Your task to perform on an android device: Open settings Image 0: 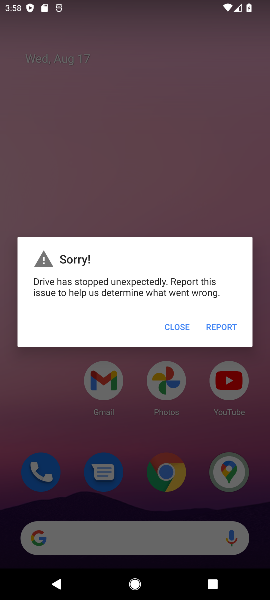
Step 0: click (173, 322)
Your task to perform on an android device: Open settings Image 1: 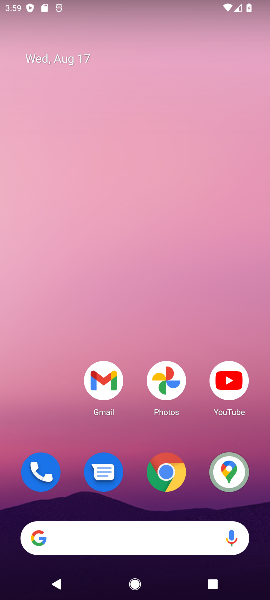
Step 1: drag from (144, 422) to (171, 27)
Your task to perform on an android device: Open settings Image 2: 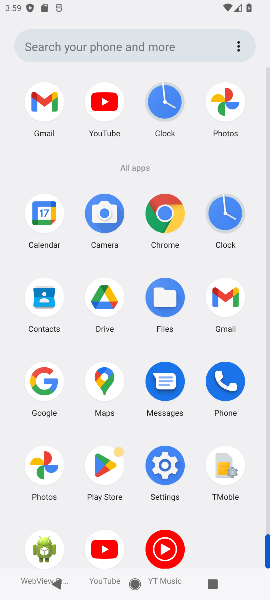
Step 2: click (156, 474)
Your task to perform on an android device: Open settings Image 3: 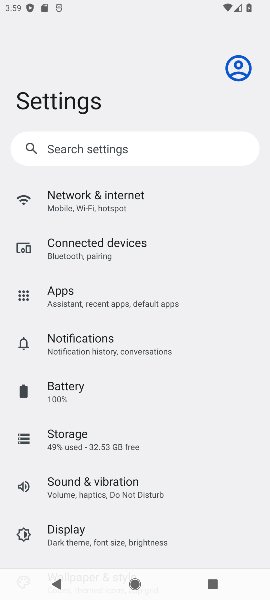
Step 3: task complete